Your task to perform on an android device: turn on data saver in the chrome app Image 0: 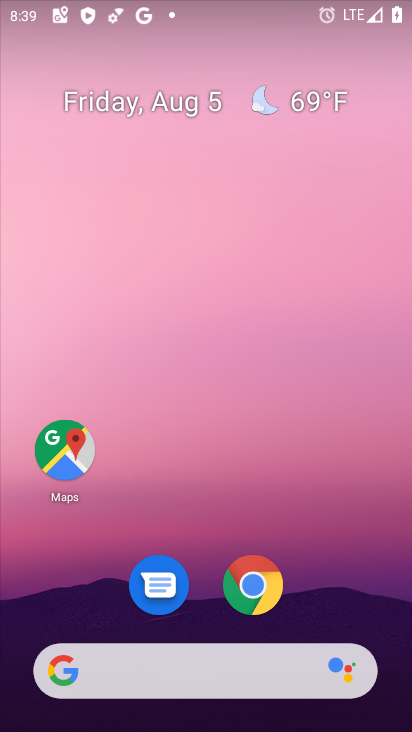
Step 0: click (254, 587)
Your task to perform on an android device: turn on data saver in the chrome app Image 1: 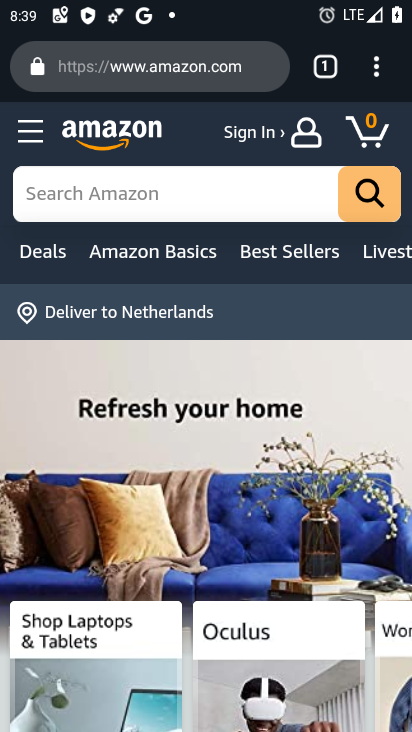
Step 1: click (378, 65)
Your task to perform on an android device: turn on data saver in the chrome app Image 2: 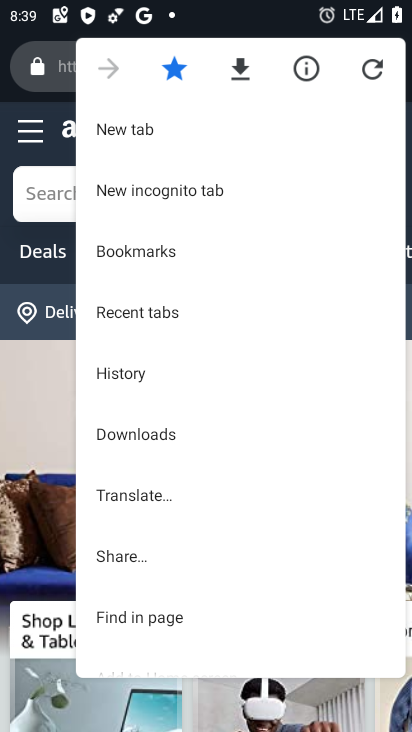
Step 2: drag from (261, 545) to (306, 215)
Your task to perform on an android device: turn on data saver in the chrome app Image 3: 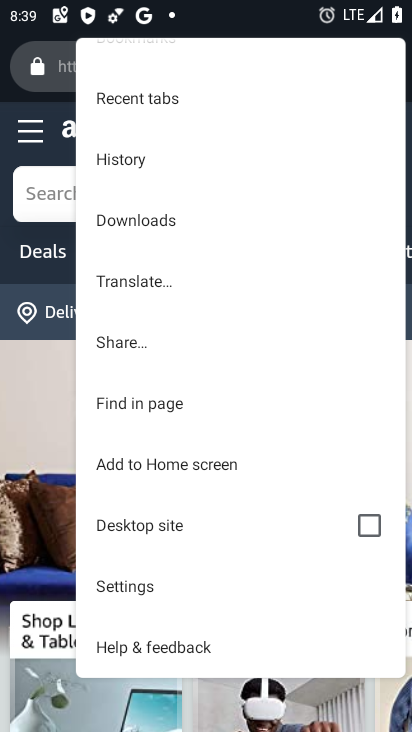
Step 3: click (160, 584)
Your task to perform on an android device: turn on data saver in the chrome app Image 4: 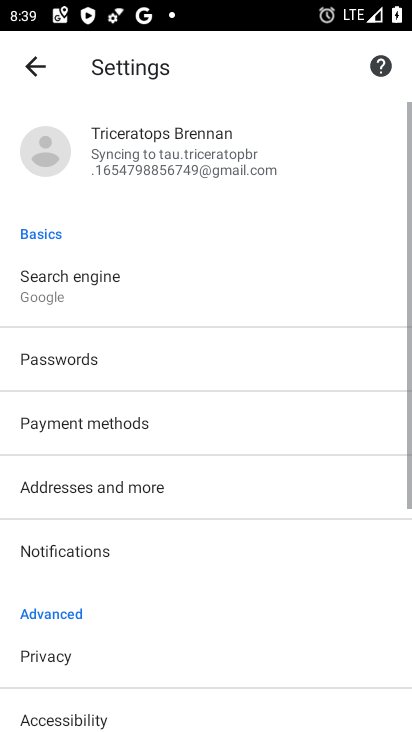
Step 4: drag from (220, 632) to (258, 77)
Your task to perform on an android device: turn on data saver in the chrome app Image 5: 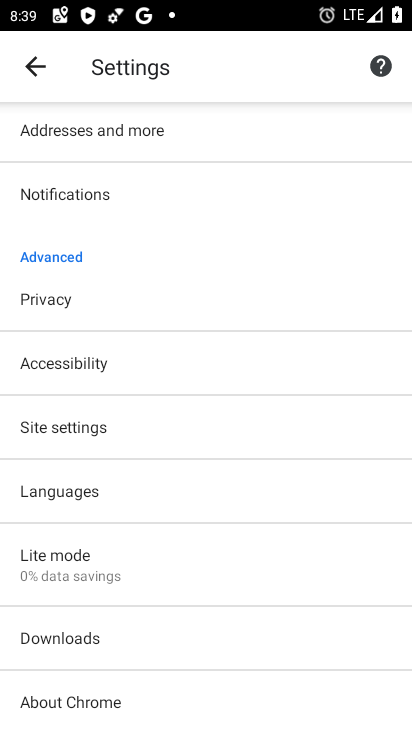
Step 5: click (90, 569)
Your task to perform on an android device: turn on data saver in the chrome app Image 6: 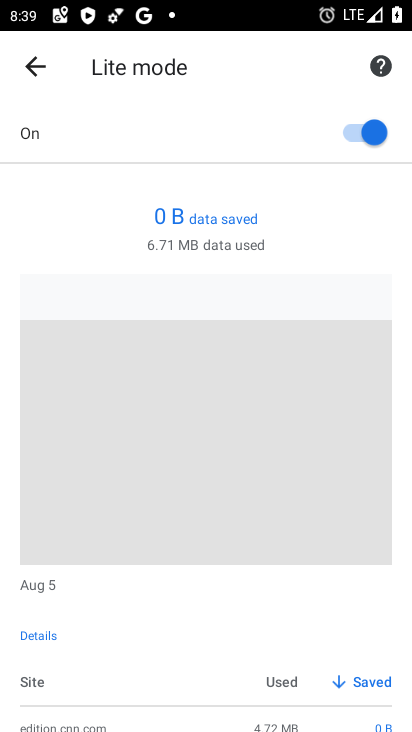
Step 6: task complete